Your task to perform on an android device: Open internet settings Image 0: 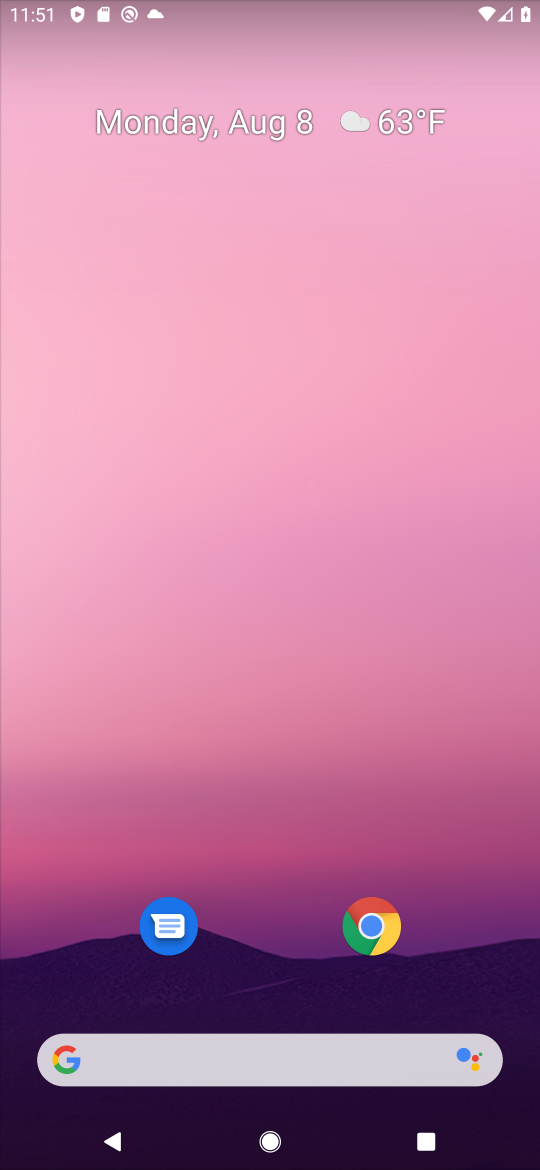
Step 0: press home button
Your task to perform on an android device: Open internet settings Image 1: 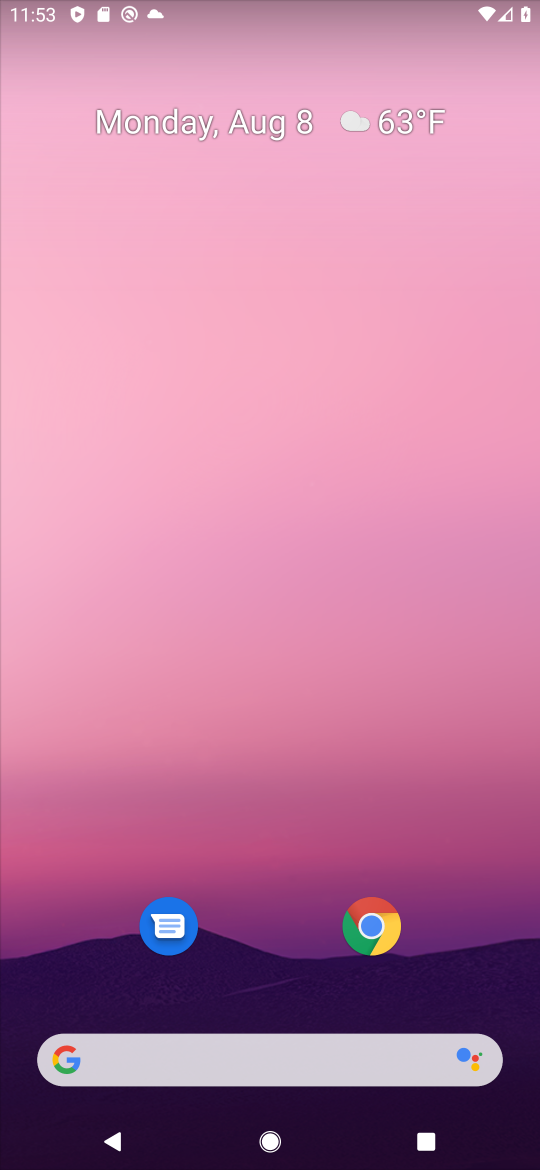
Step 1: drag from (152, 674) to (315, 20)
Your task to perform on an android device: Open internet settings Image 2: 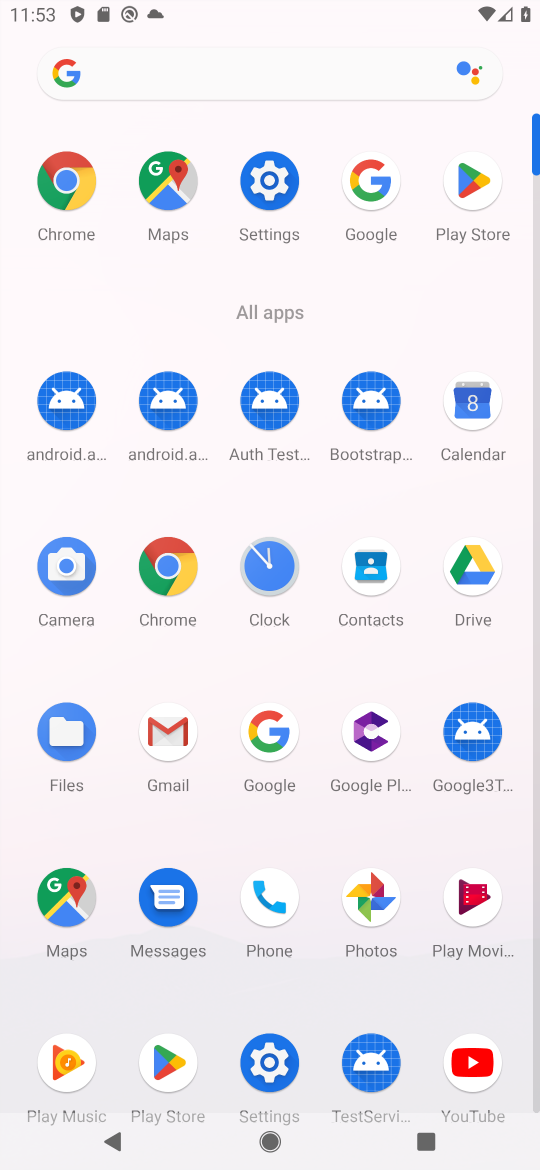
Step 2: click (259, 173)
Your task to perform on an android device: Open internet settings Image 3: 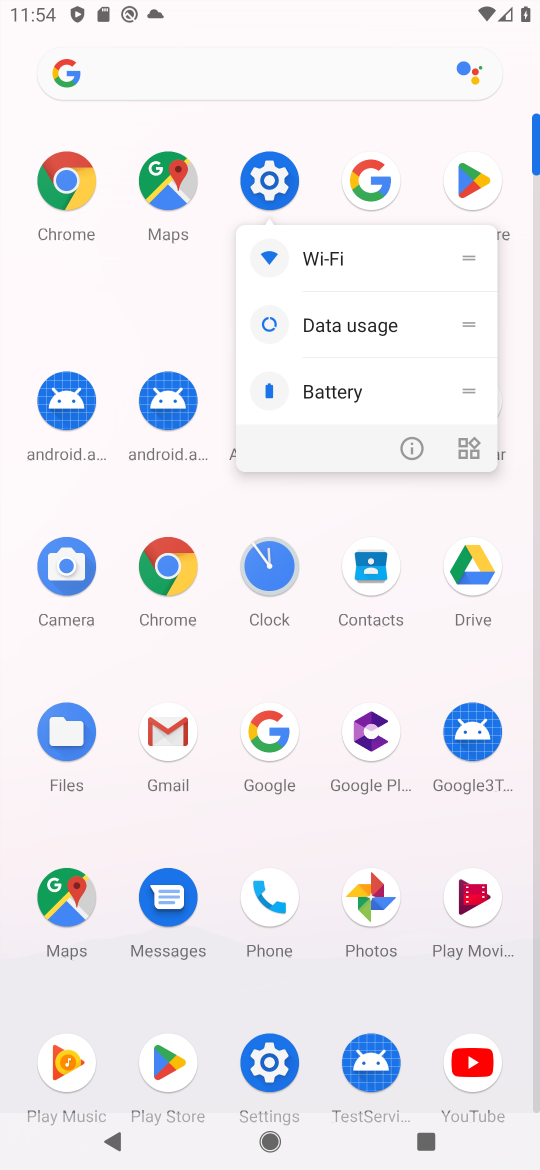
Step 3: click (254, 160)
Your task to perform on an android device: Open internet settings Image 4: 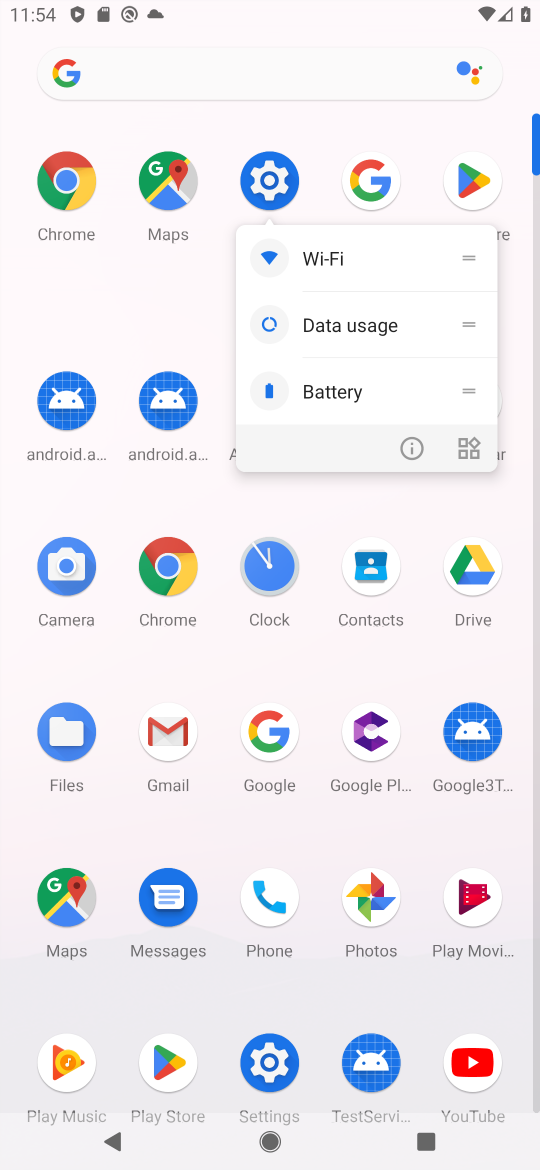
Step 4: click (260, 178)
Your task to perform on an android device: Open internet settings Image 5: 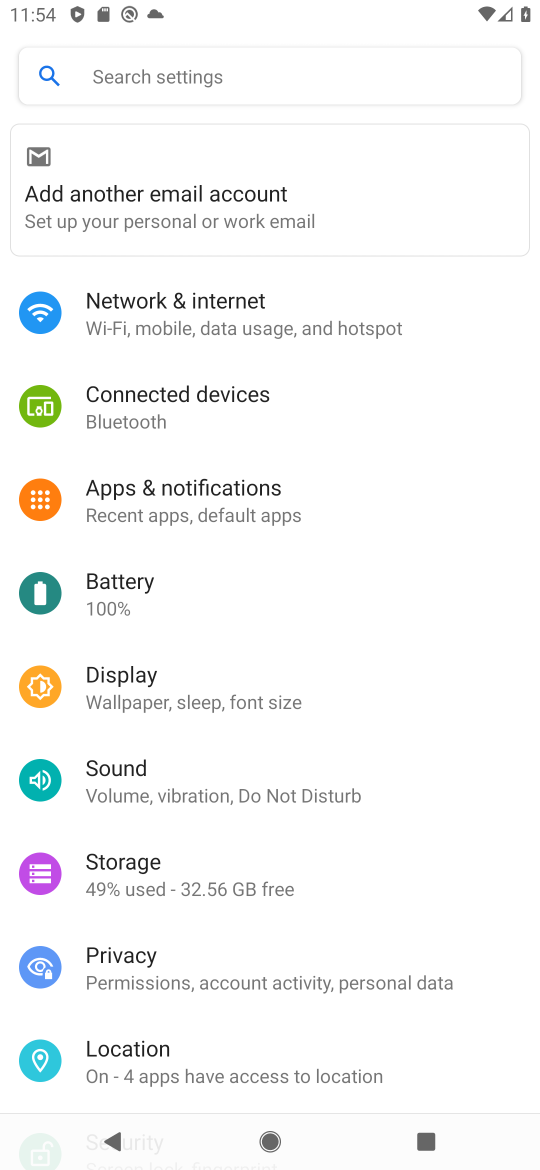
Step 5: click (254, 319)
Your task to perform on an android device: Open internet settings Image 6: 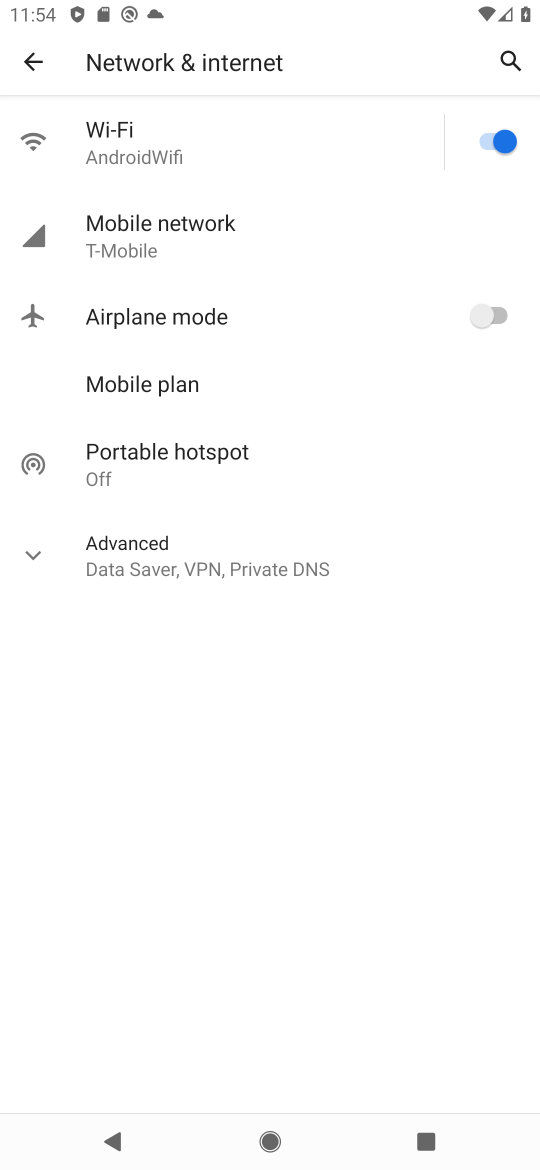
Step 6: click (210, 231)
Your task to perform on an android device: Open internet settings Image 7: 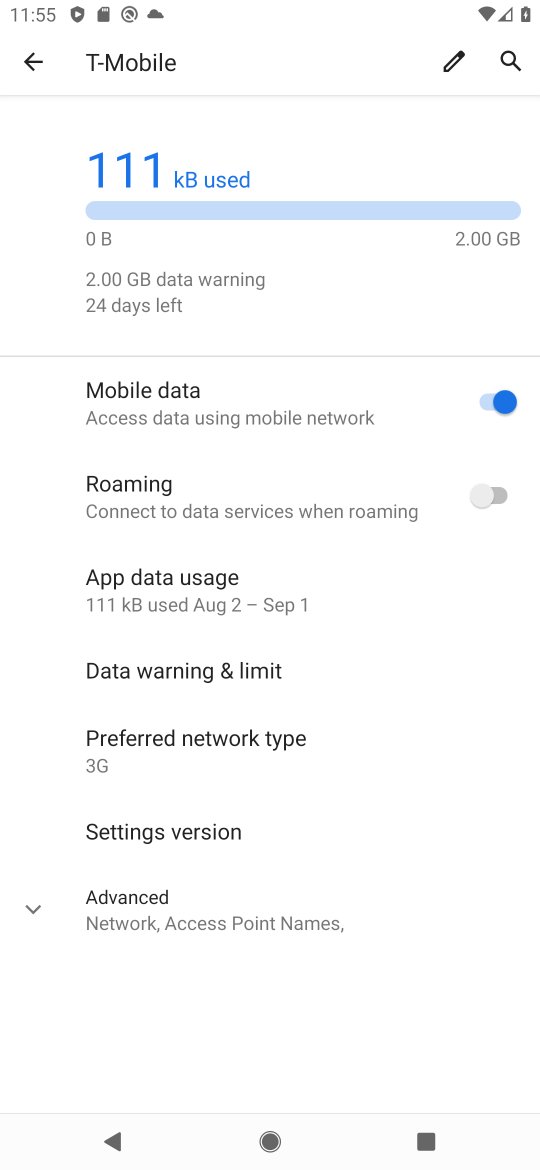
Step 7: task complete